Your task to perform on an android device: Open Android settings Image 0: 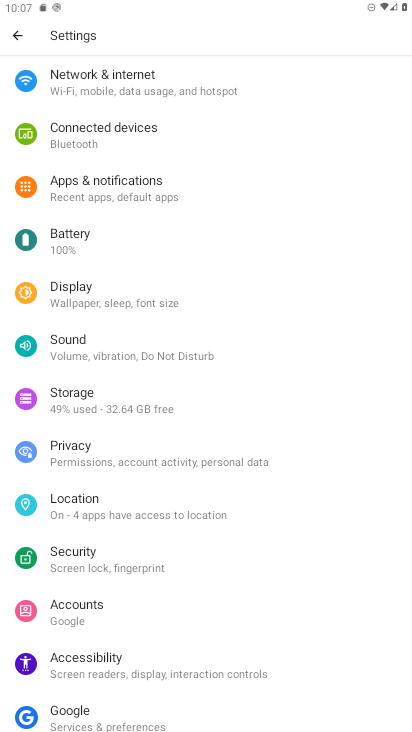
Step 0: drag from (194, 500) to (224, 10)
Your task to perform on an android device: Open Android settings Image 1: 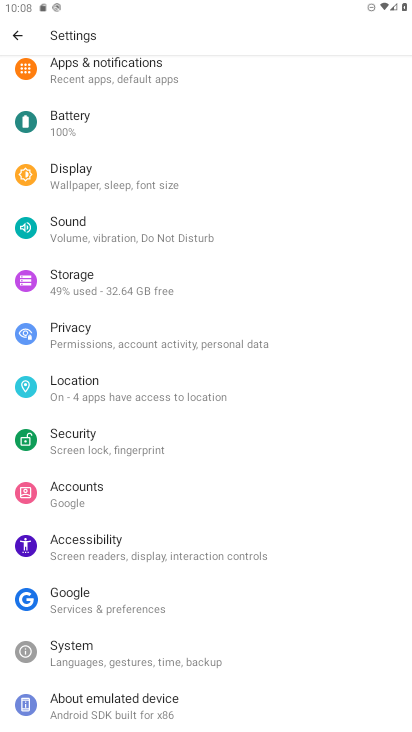
Step 1: task complete